Your task to perform on an android device: Add macbook pro 15 inch to the cart on bestbuy.com Image 0: 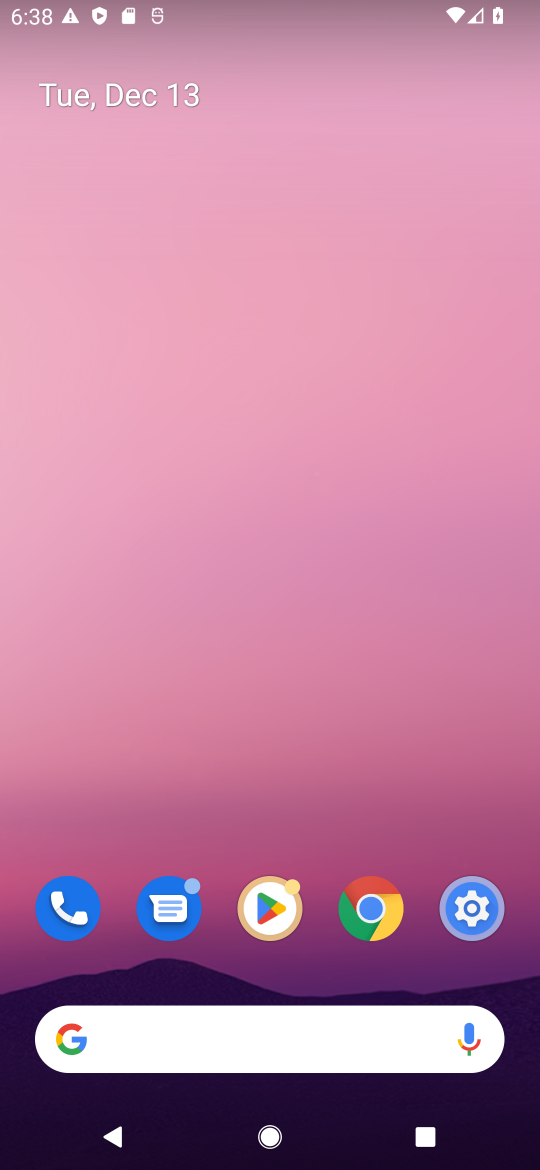
Step 0: click (103, 1049)
Your task to perform on an android device: Add macbook pro 15 inch to the cart on bestbuy.com Image 1: 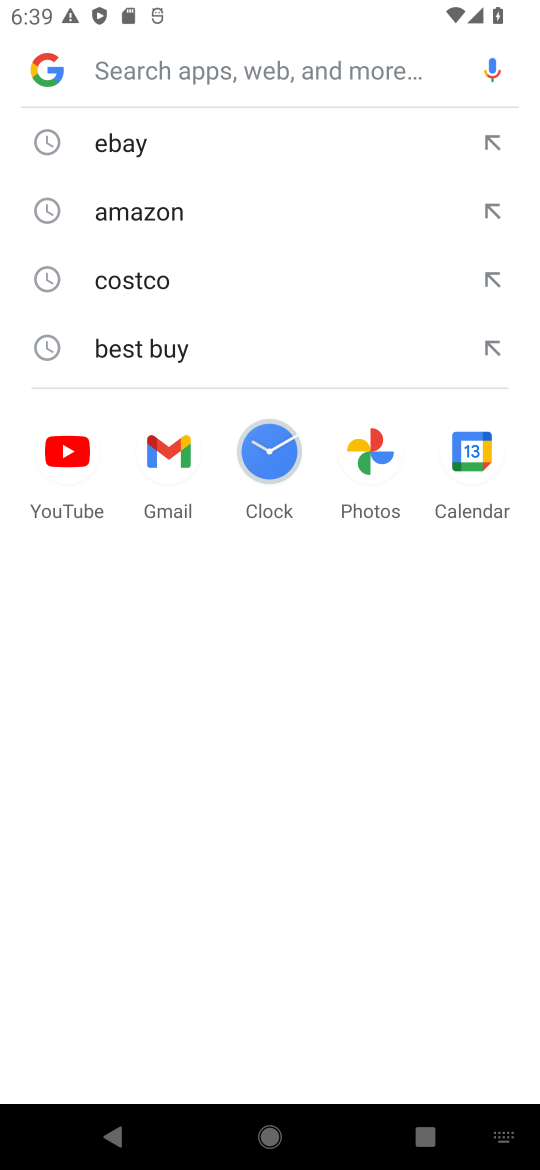
Step 1: type "bestbuy.com"
Your task to perform on an android device: Add macbook pro 15 inch to the cart on bestbuy.com Image 2: 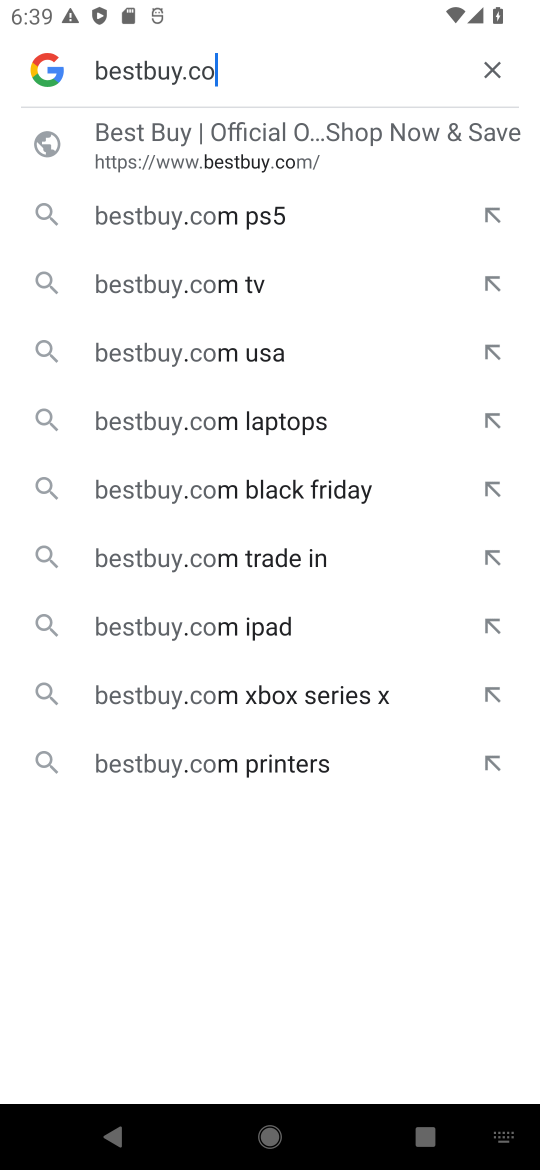
Step 2: press enter
Your task to perform on an android device: Add macbook pro 15 inch to the cart on bestbuy.com Image 3: 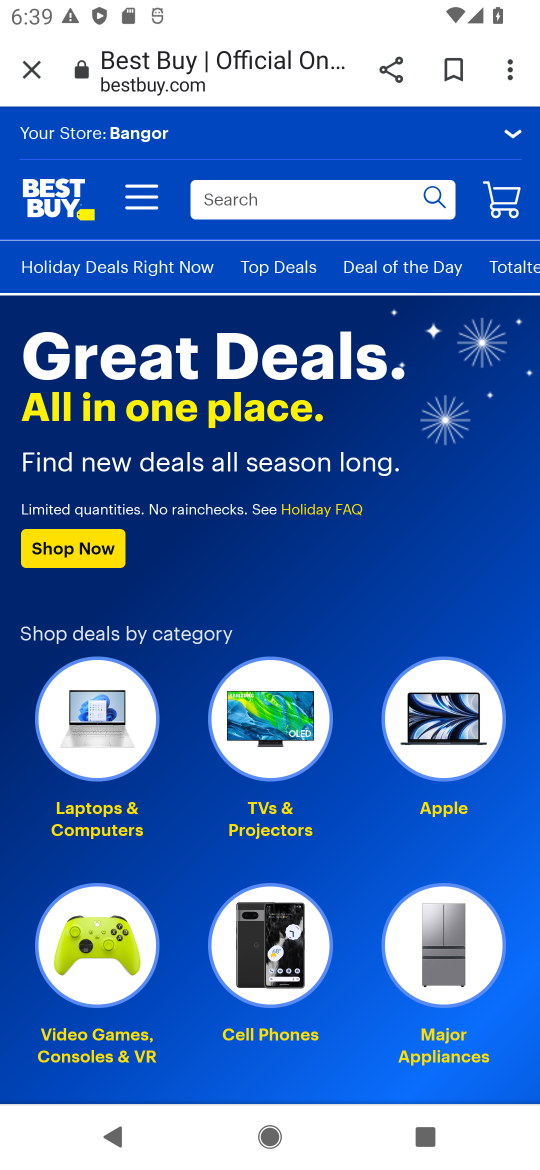
Step 3: click (287, 200)
Your task to perform on an android device: Add macbook pro 15 inch to the cart on bestbuy.com Image 4: 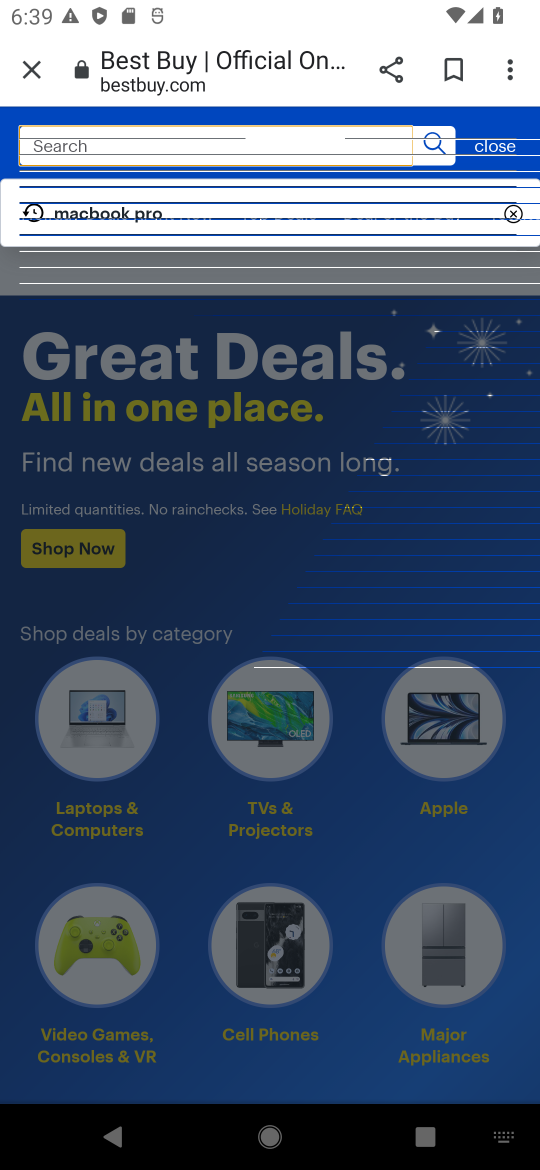
Step 4: type " macbook pro 15 inch "
Your task to perform on an android device: Add macbook pro 15 inch to the cart on bestbuy.com Image 5: 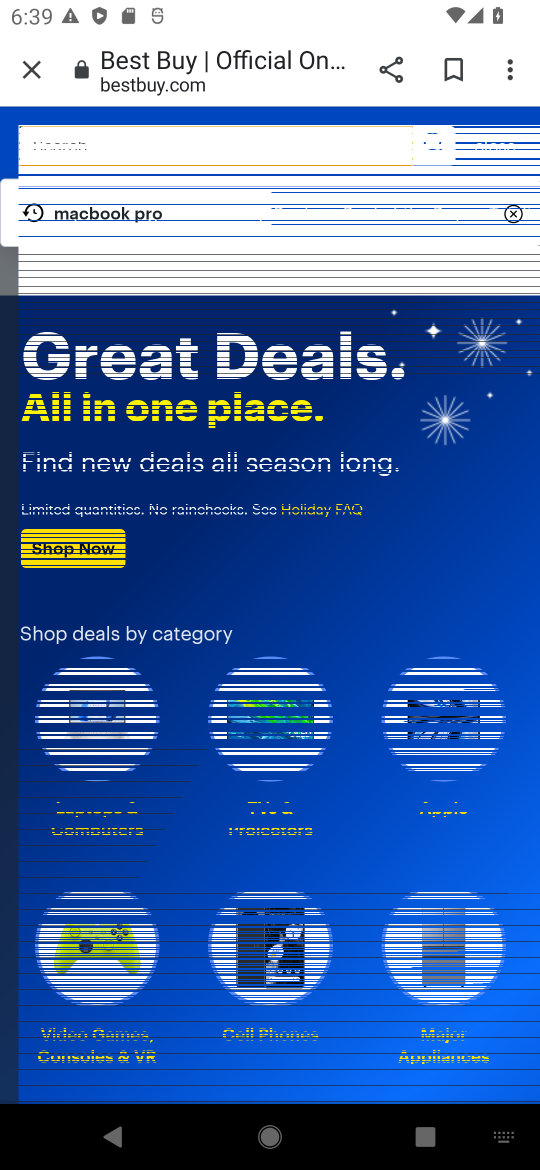
Step 5: press enter
Your task to perform on an android device: Add macbook pro 15 inch to the cart on bestbuy.com Image 6: 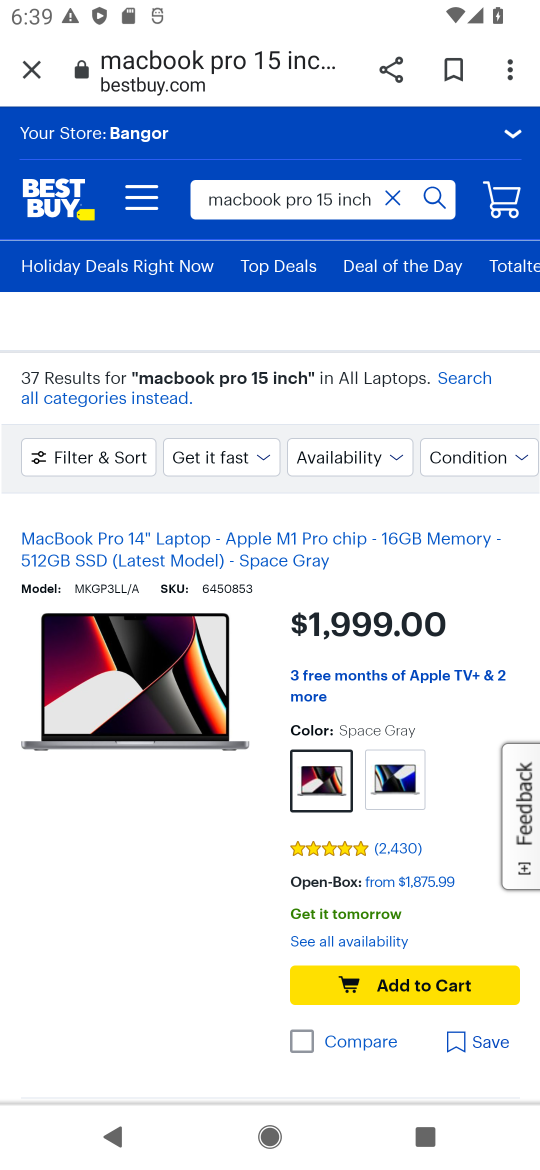
Step 6: click (414, 978)
Your task to perform on an android device: Add macbook pro 15 inch to the cart on bestbuy.com Image 7: 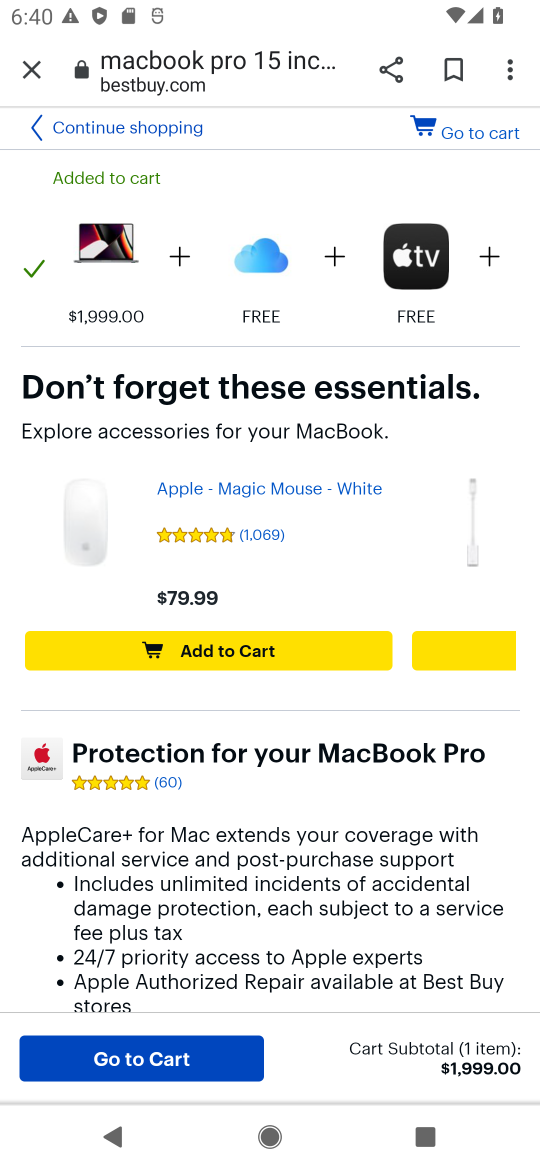
Step 7: click (142, 1074)
Your task to perform on an android device: Add macbook pro 15 inch to the cart on bestbuy.com Image 8: 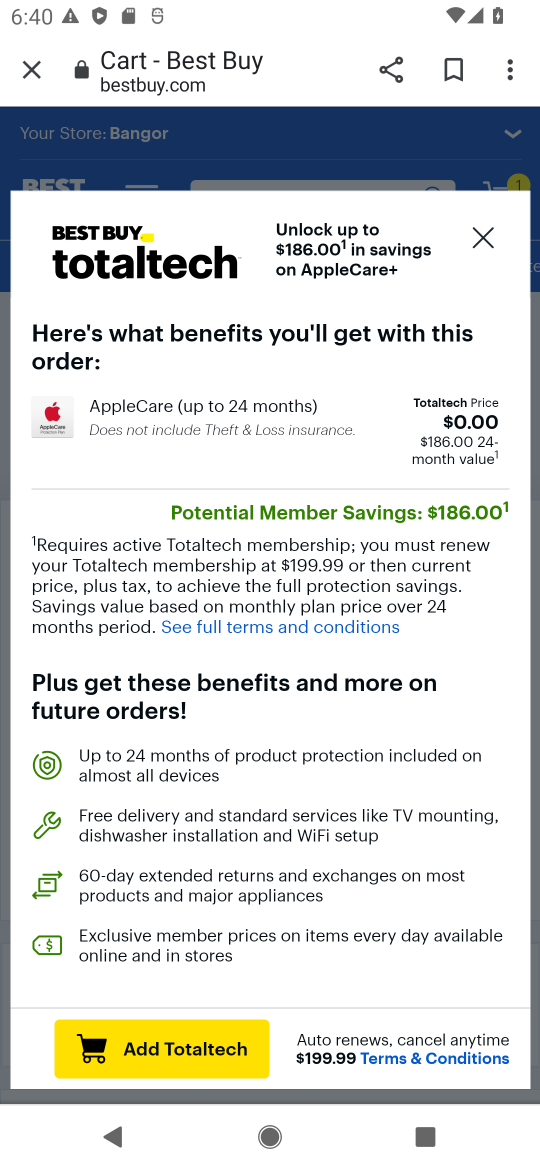
Step 8: task complete